Your task to perform on an android device: refresh tabs in the chrome app Image 0: 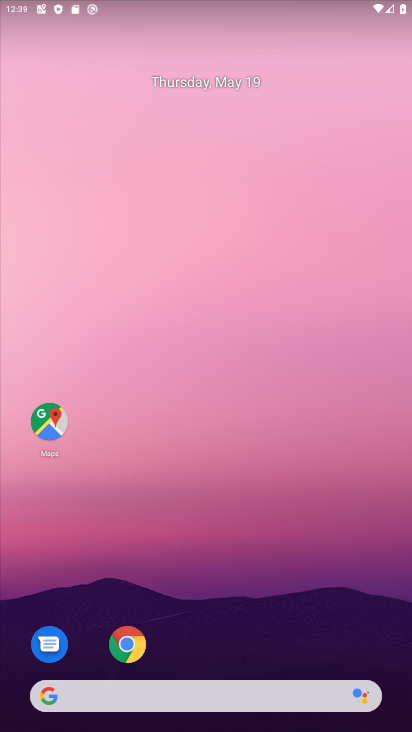
Step 0: drag from (311, 477) to (305, 164)
Your task to perform on an android device: refresh tabs in the chrome app Image 1: 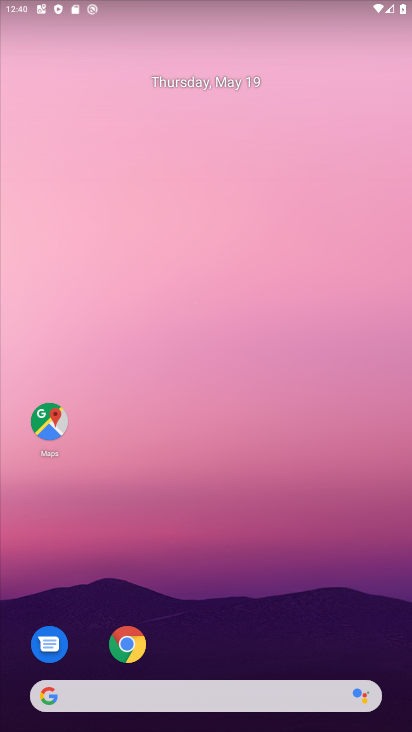
Step 1: drag from (301, 618) to (310, 198)
Your task to perform on an android device: refresh tabs in the chrome app Image 2: 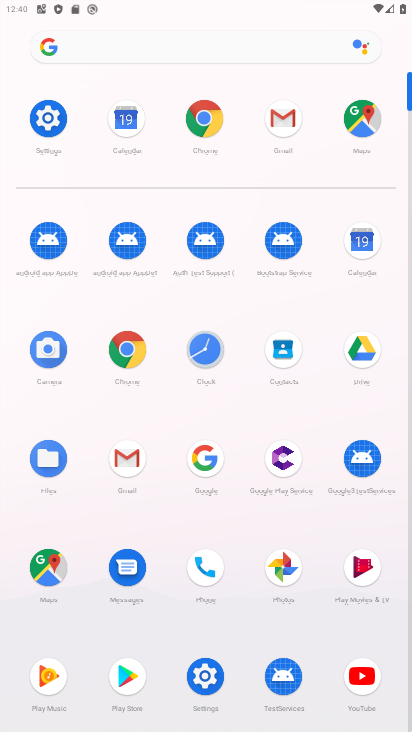
Step 2: click (114, 369)
Your task to perform on an android device: refresh tabs in the chrome app Image 3: 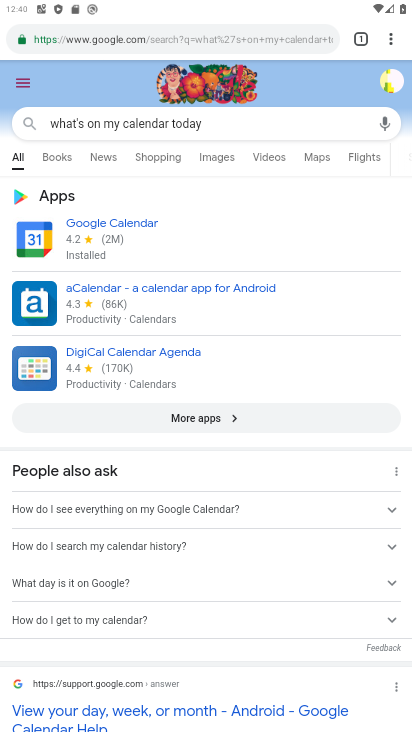
Step 3: drag from (297, 674) to (248, 297)
Your task to perform on an android device: refresh tabs in the chrome app Image 4: 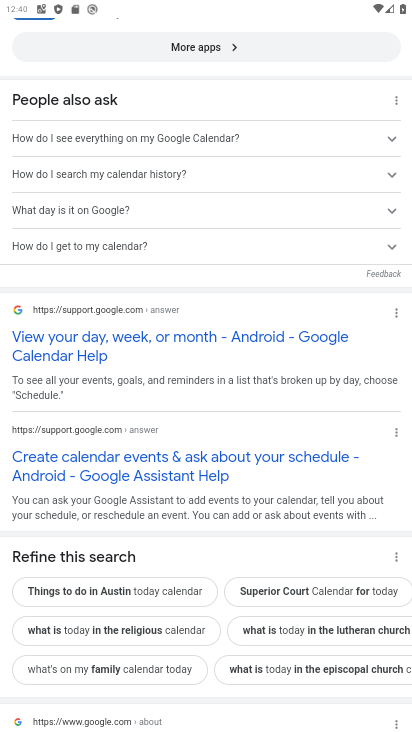
Step 4: drag from (209, 164) to (229, 588)
Your task to perform on an android device: refresh tabs in the chrome app Image 5: 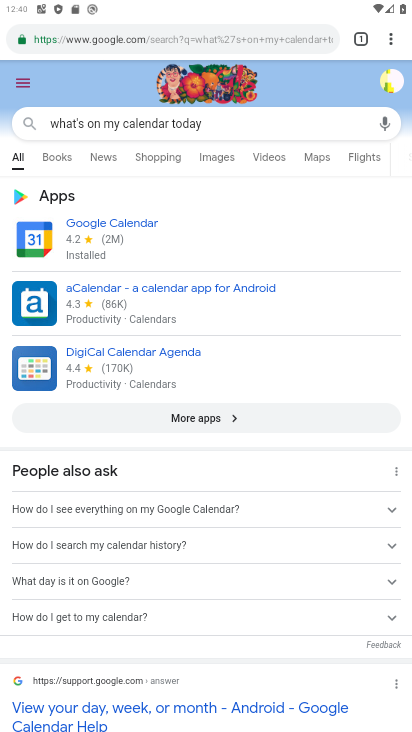
Step 5: click (391, 33)
Your task to perform on an android device: refresh tabs in the chrome app Image 6: 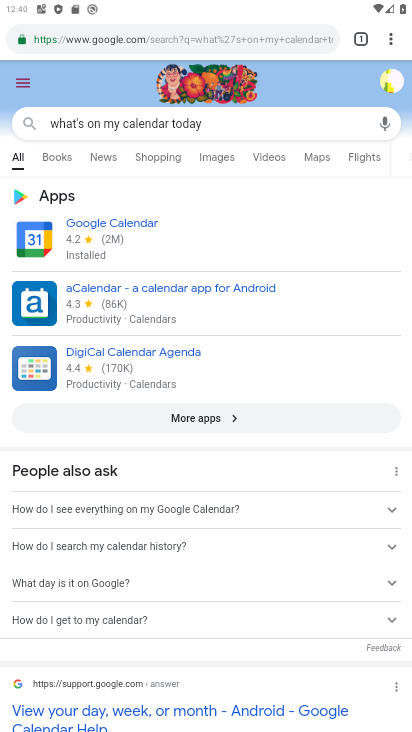
Step 6: task complete